Your task to perform on an android device: Go to Amazon Image 0: 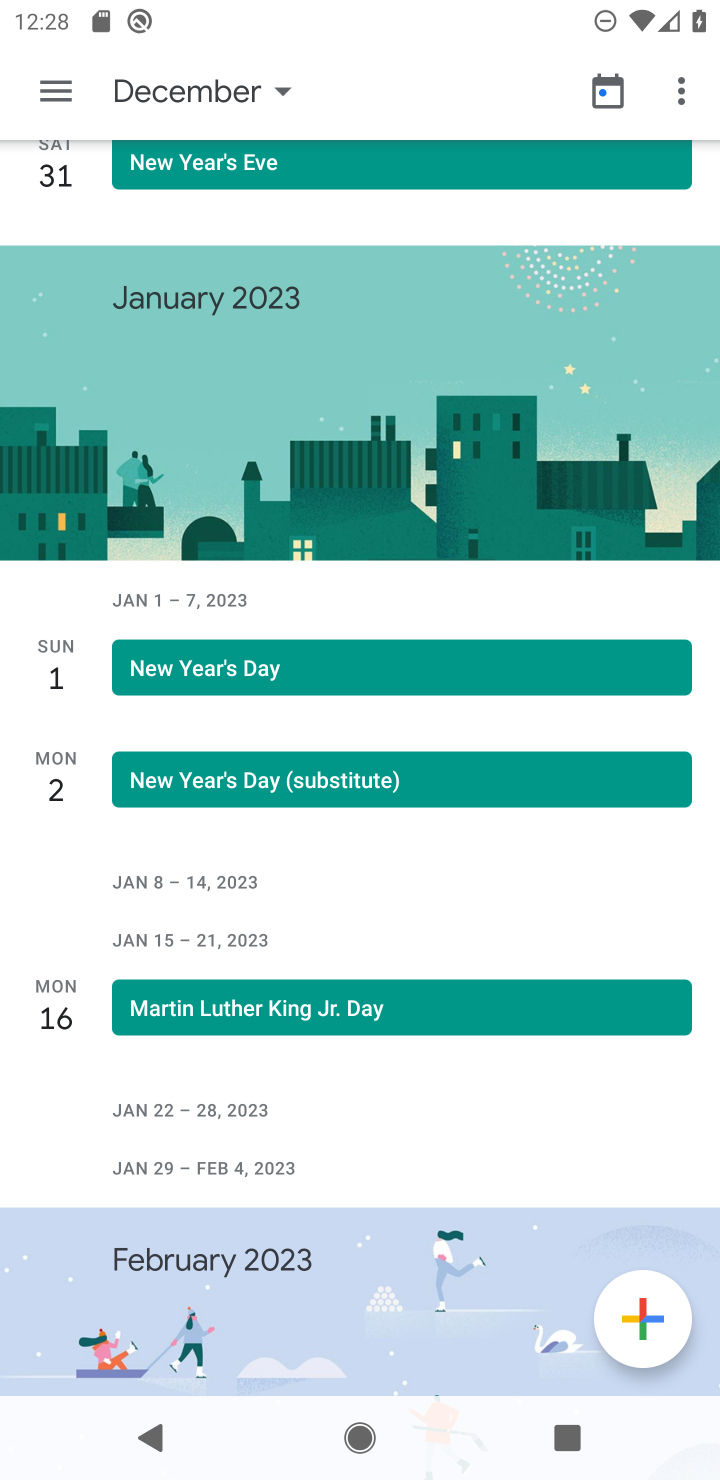
Step 0: press home button
Your task to perform on an android device: Go to Amazon Image 1: 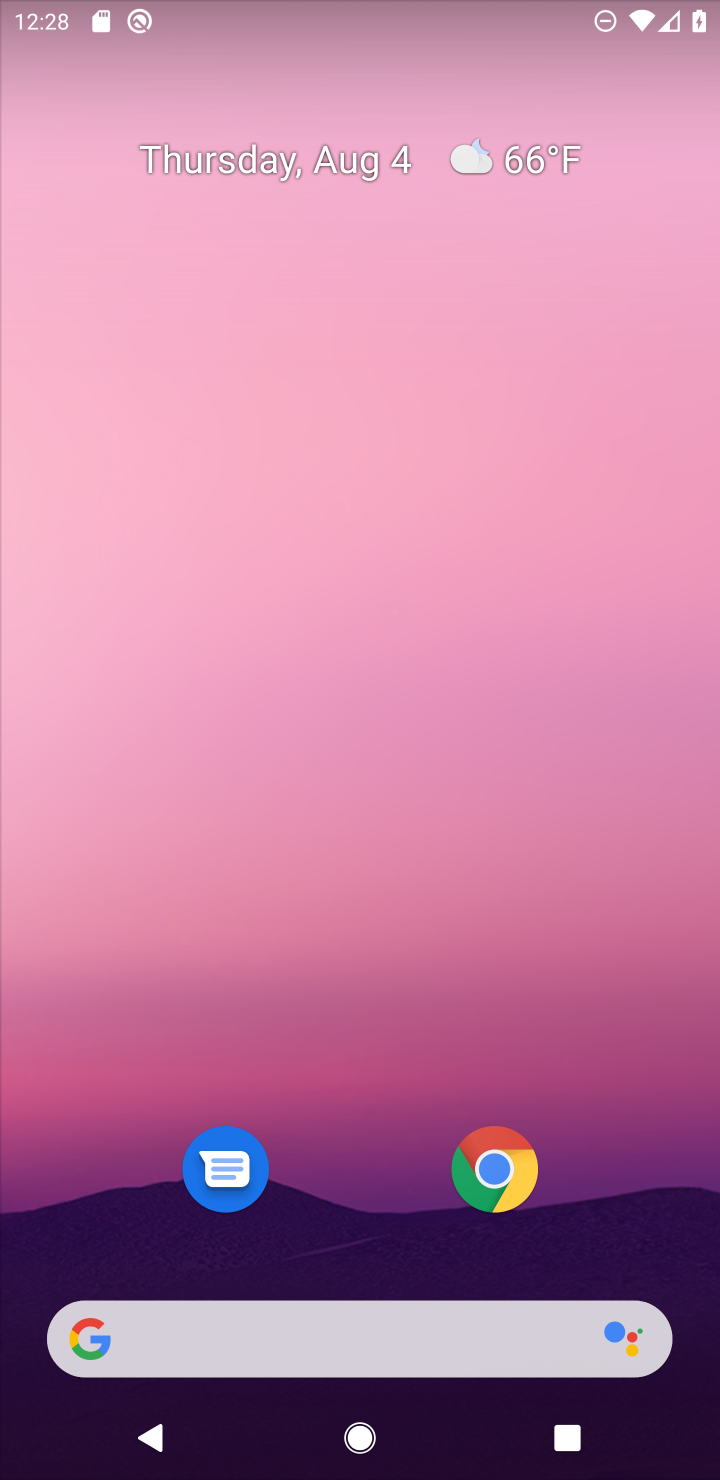
Step 1: click (495, 1180)
Your task to perform on an android device: Go to Amazon Image 2: 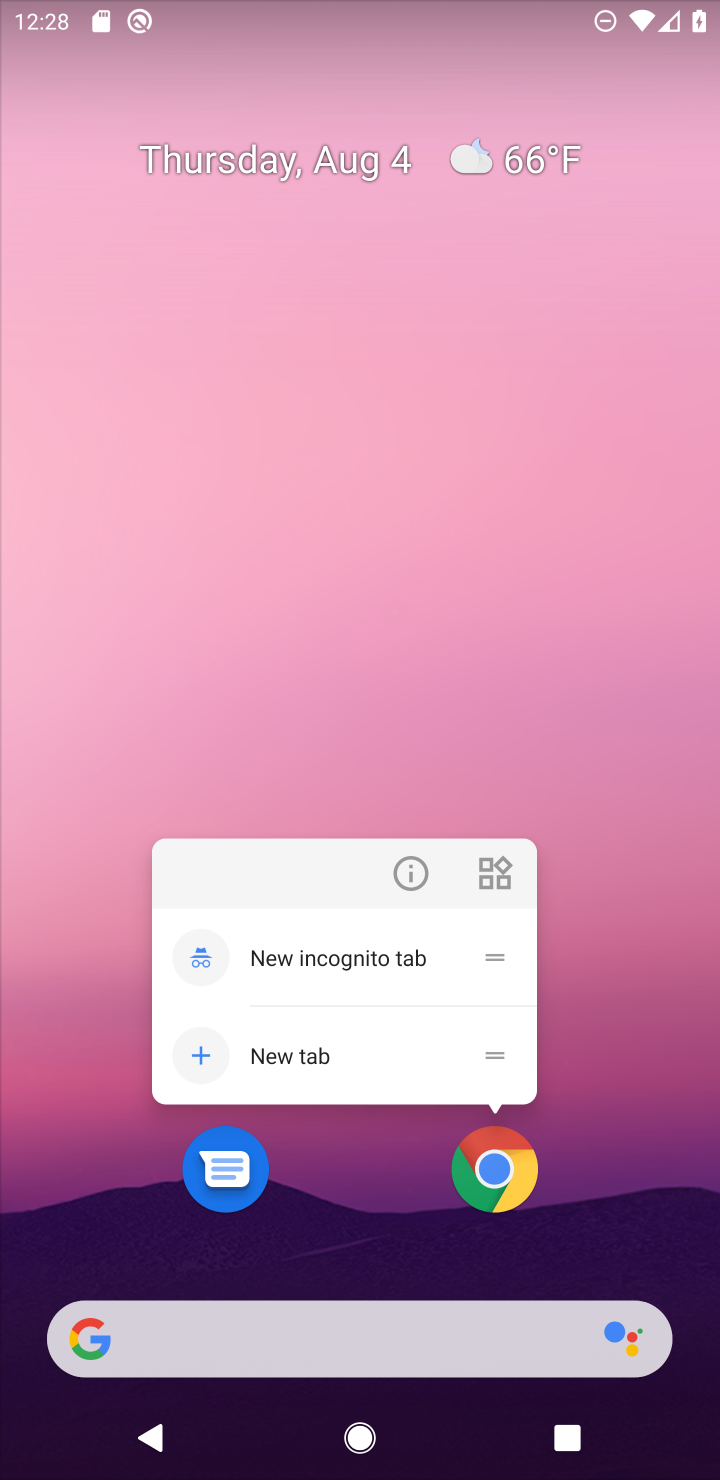
Step 2: click (496, 1182)
Your task to perform on an android device: Go to Amazon Image 3: 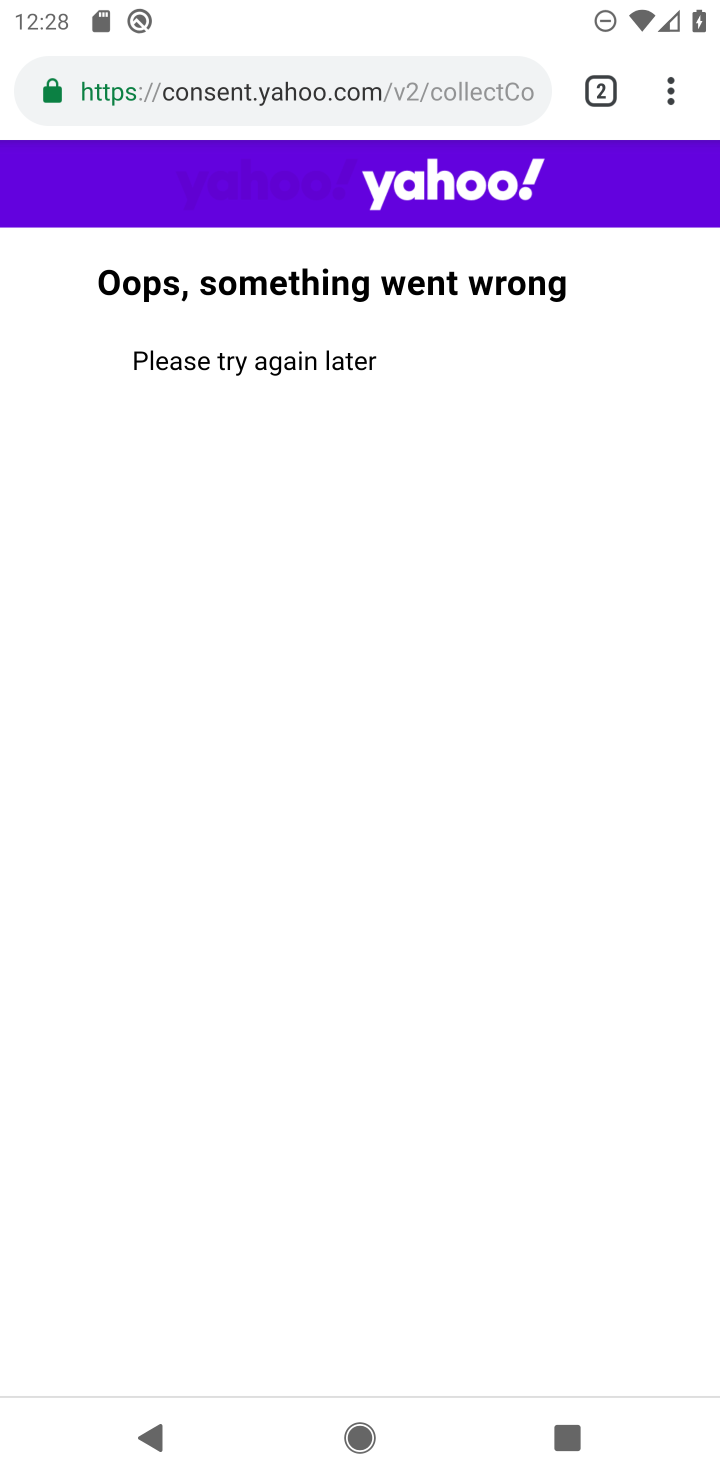
Step 3: click (154, 103)
Your task to perform on an android device: Go to Amazon Image 4: 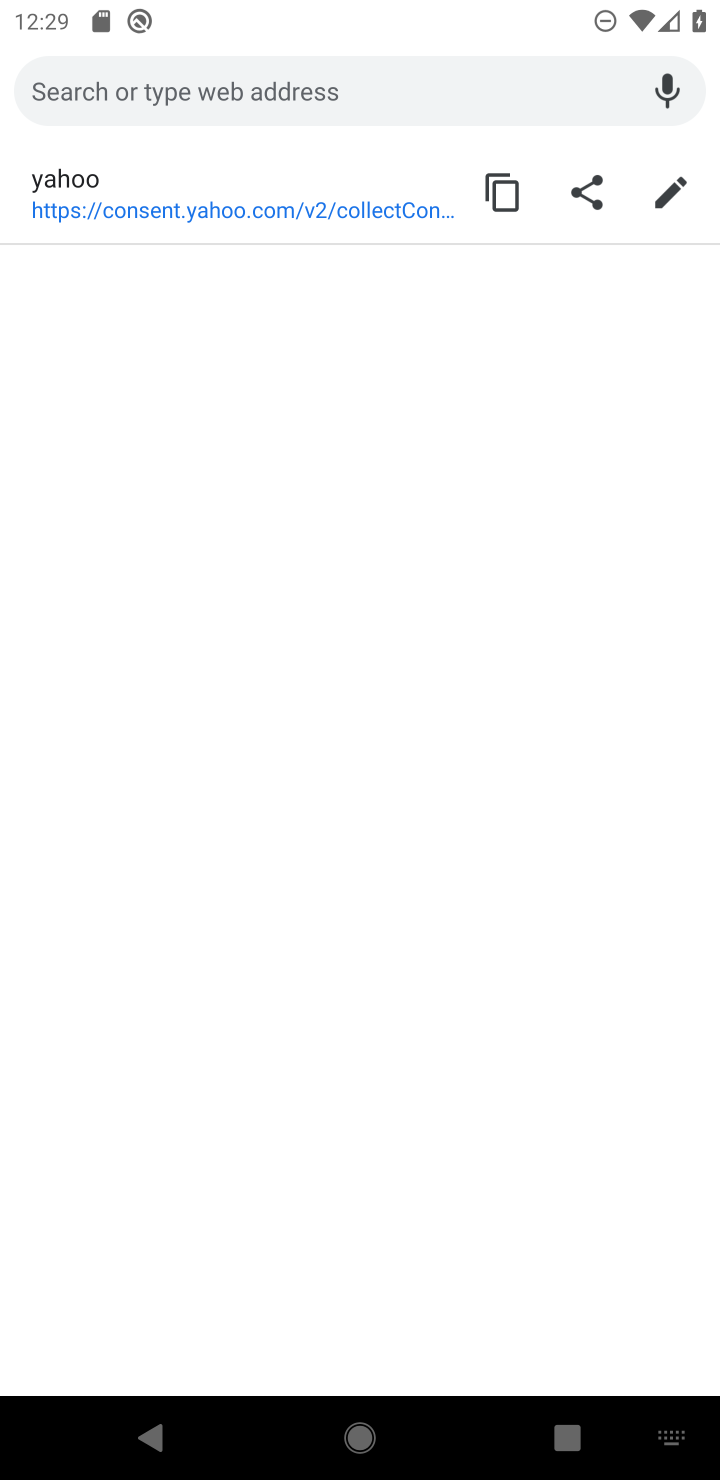
Step 4: type "amazon "
Your task to perform on an android device: Go to Amazon Image 5: 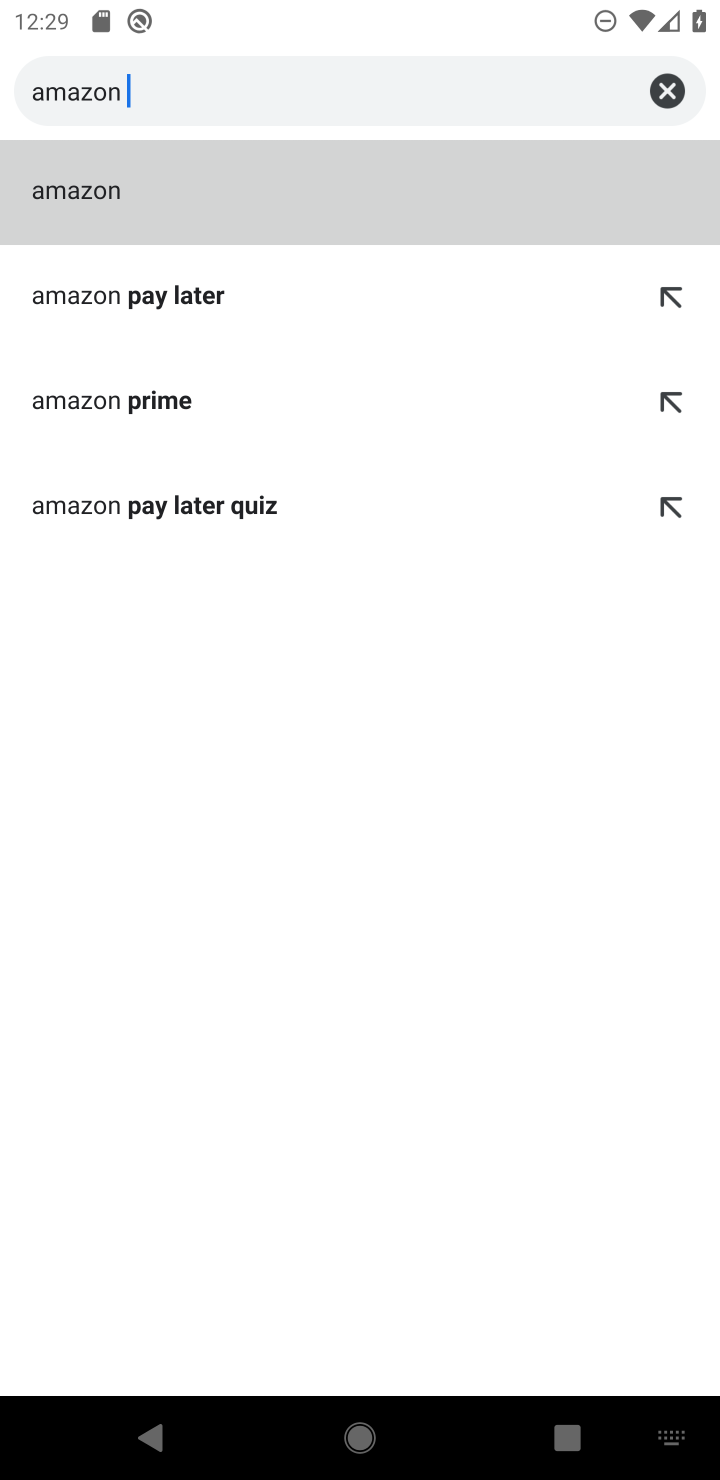
Step 5: click (105, 189)
Your task to perform on an android device: Go to Amazon Image 6: 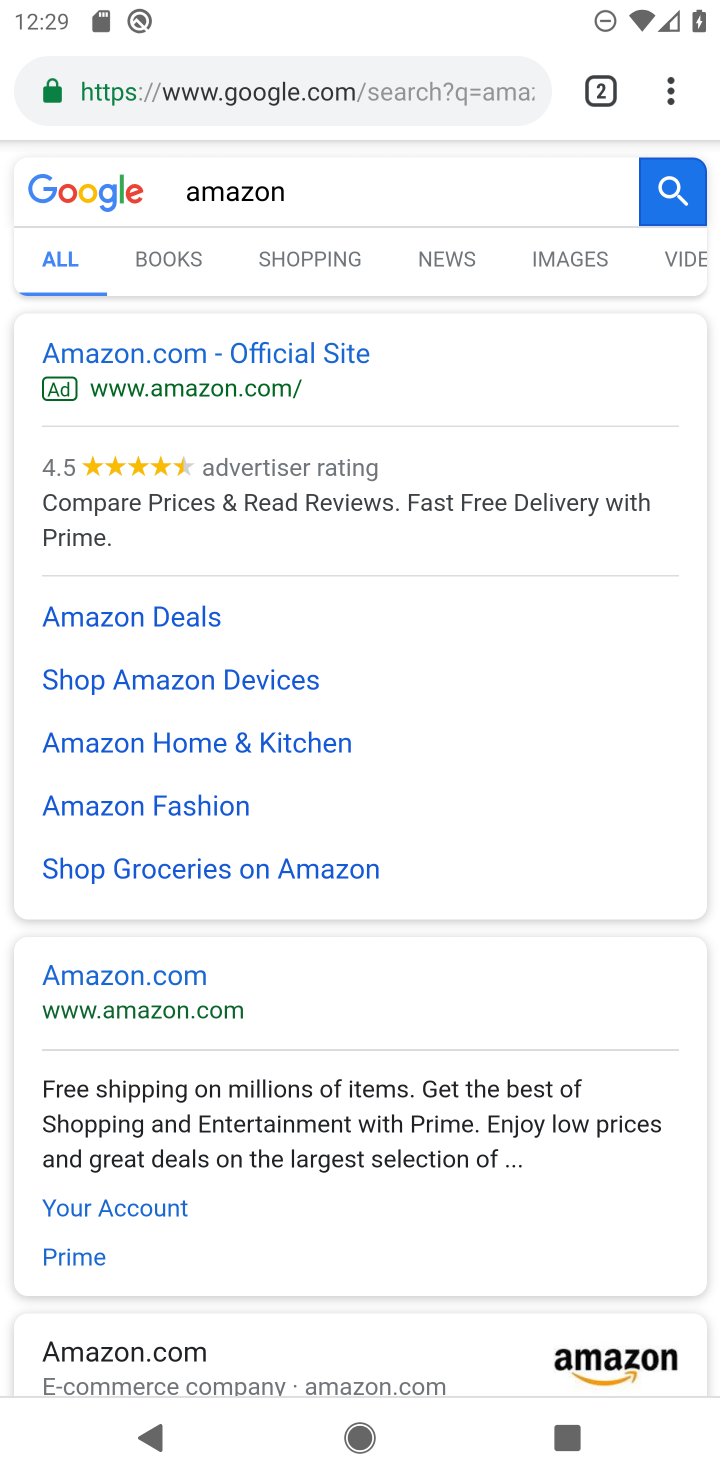
Step 6: click (129, 352)
Your task to perform on an android device: Go to Amazon Image 7: 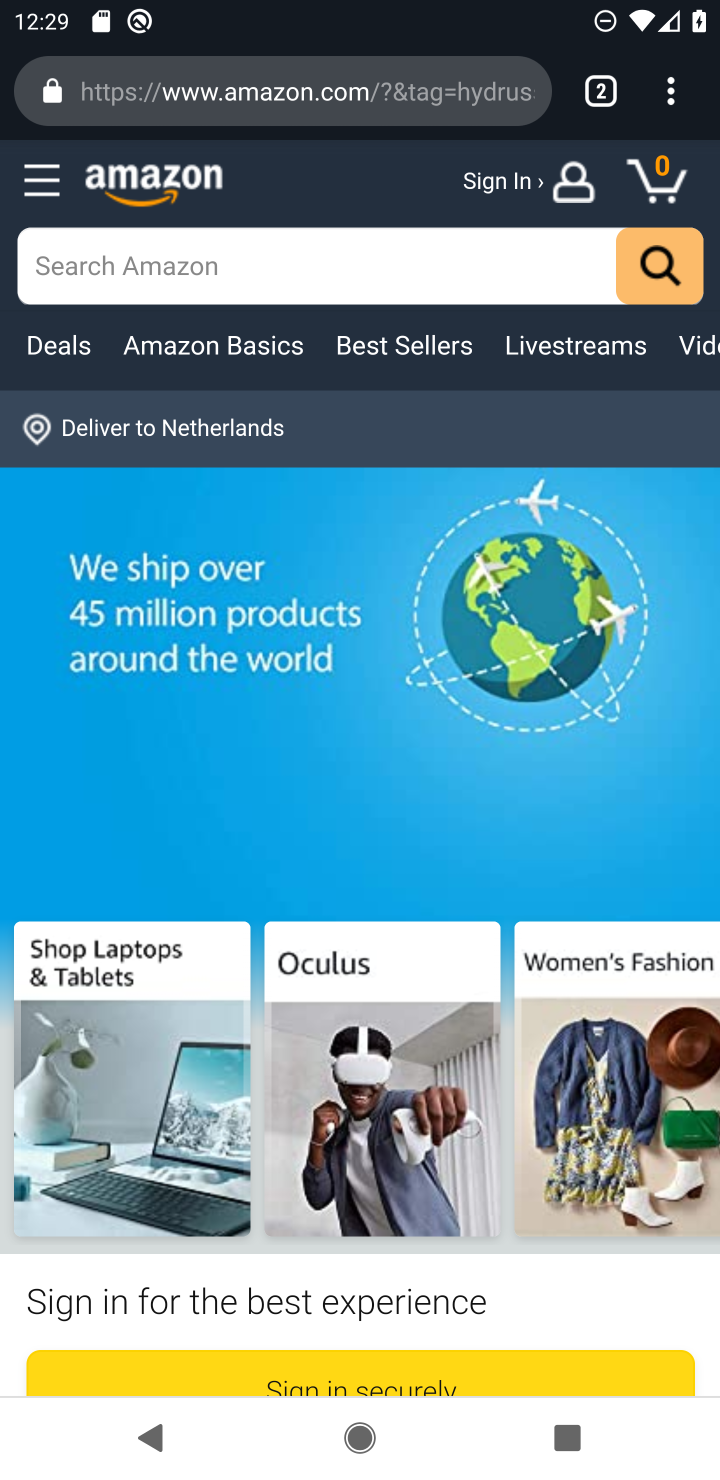
Step 7: task complete